Your task to perform on an android device: turn off location history Image 0: 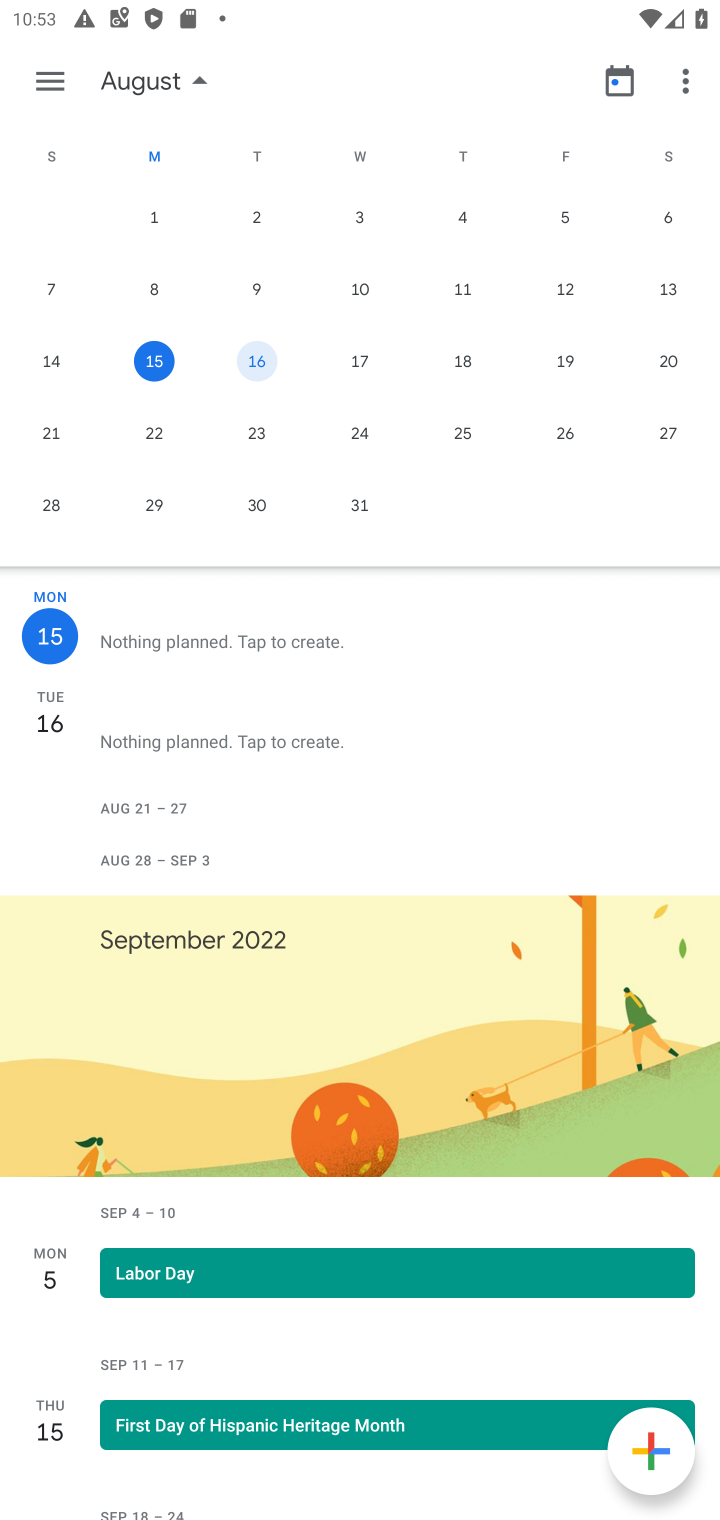
Step 0: press home button
Your task to perform on an android device: turn off location history Image 1: 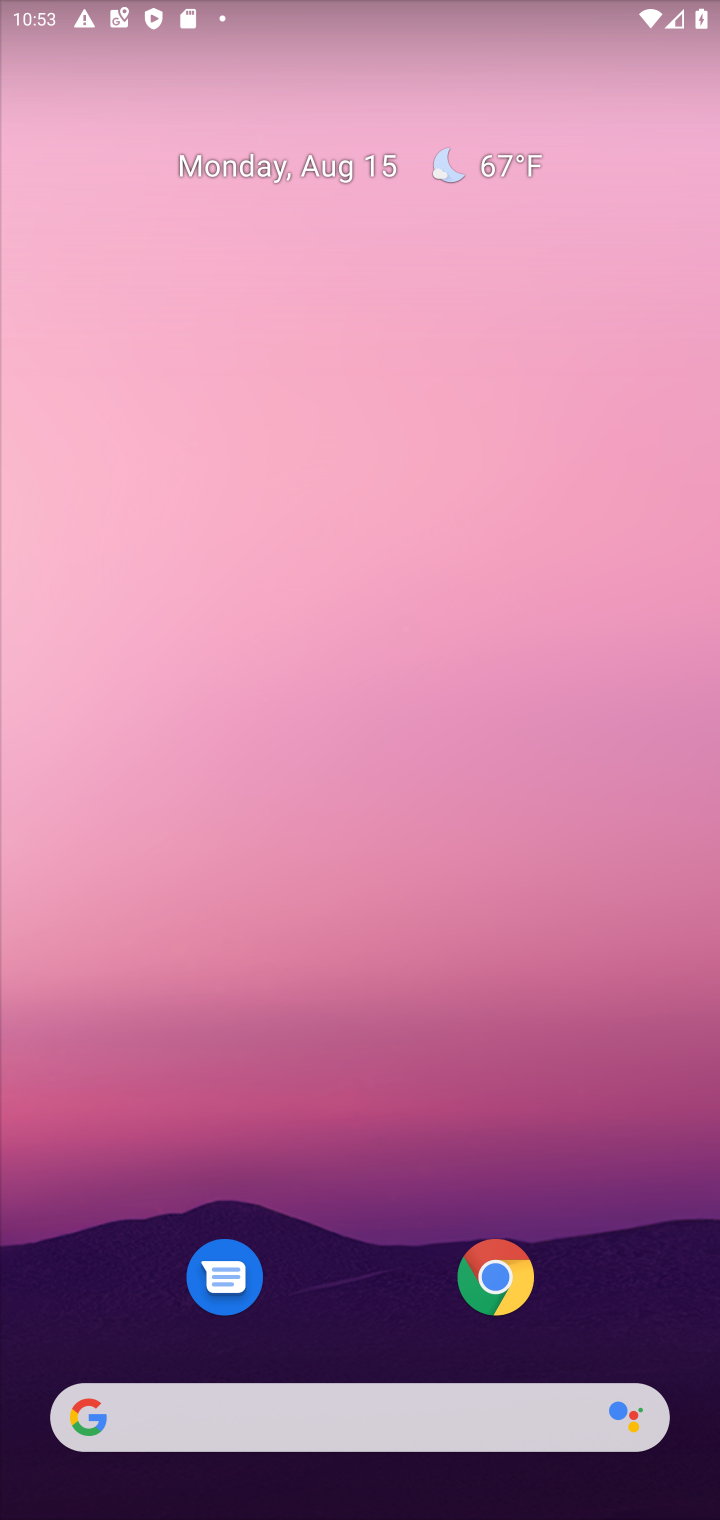
Step 1: drag from (279, 1398) to (272, 151)
Your task to perform on an android device: turn off location history Image 2: 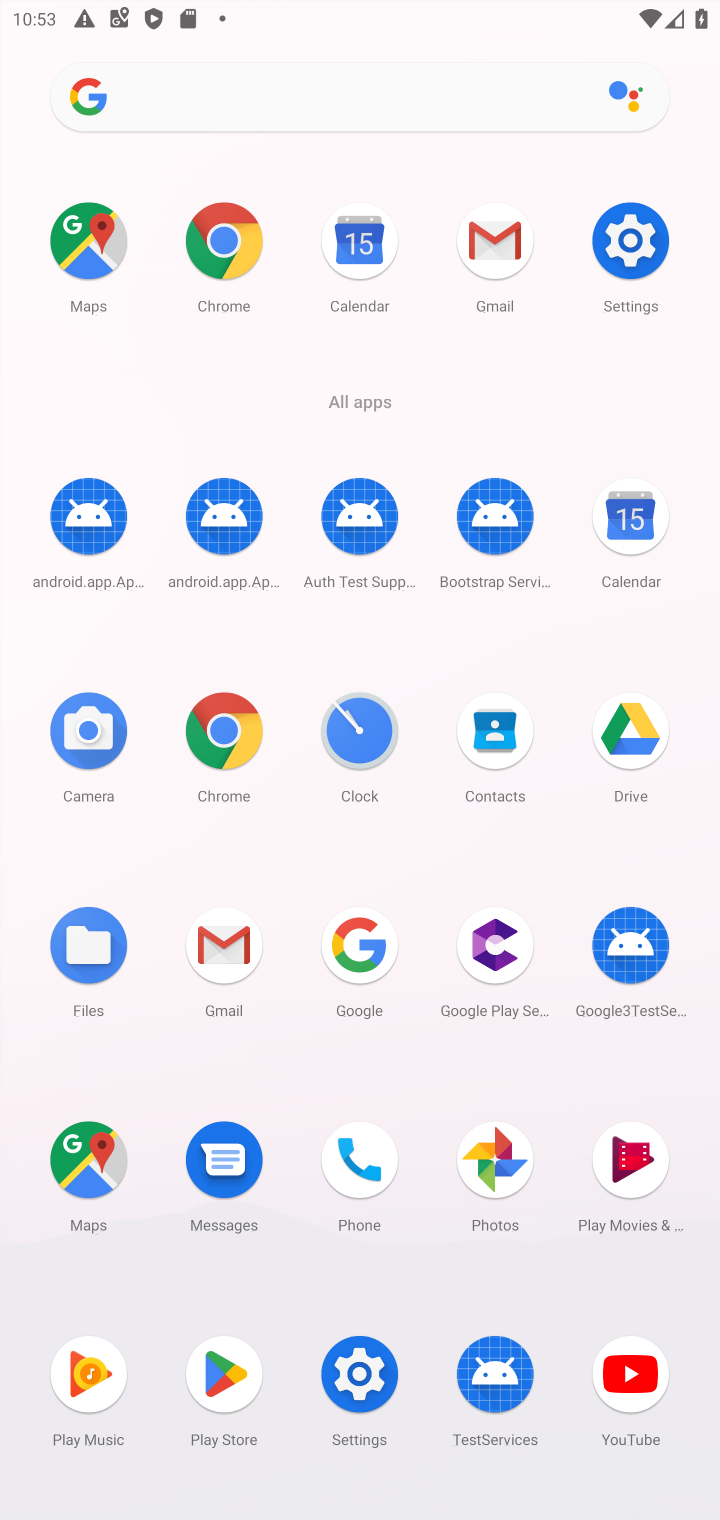
Step 2: click (632, 238)
Your task to perform on an android device: turn off location history Image 3: 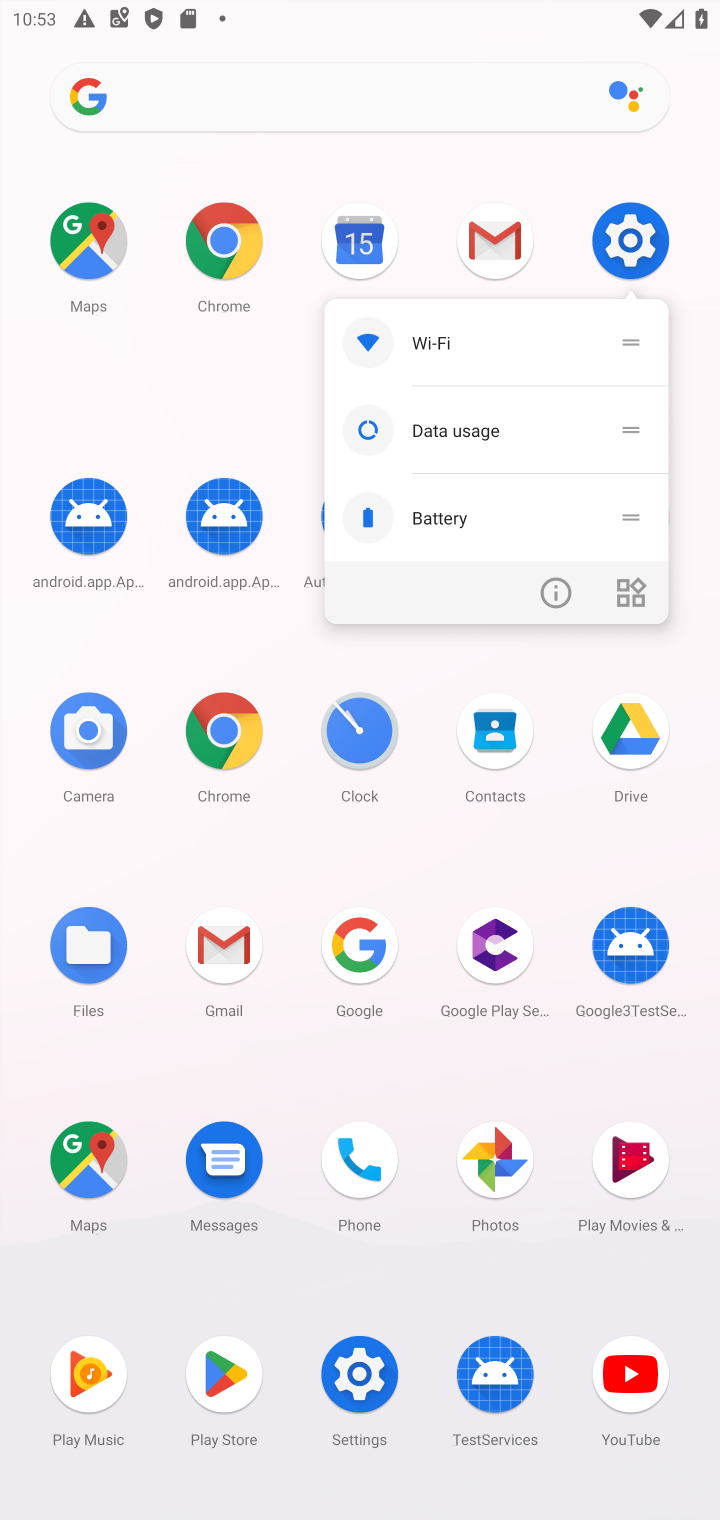
Step 3: click (625, 214)
Your task to perform on an android device: turn off location history Image 4: 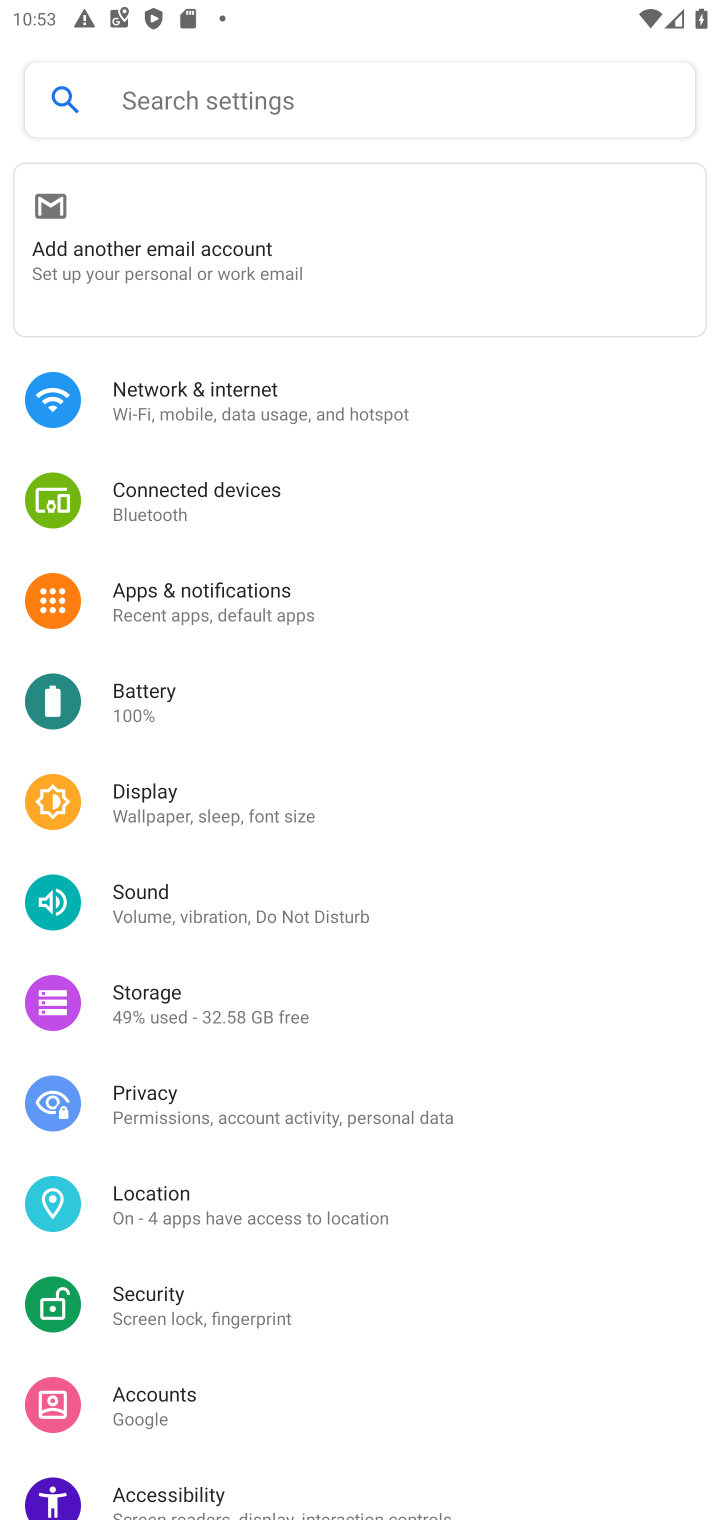
Step 4: drag from (192, 1391) to (270, 289)
Your task to perform on an android device: turn off location history Image 5: 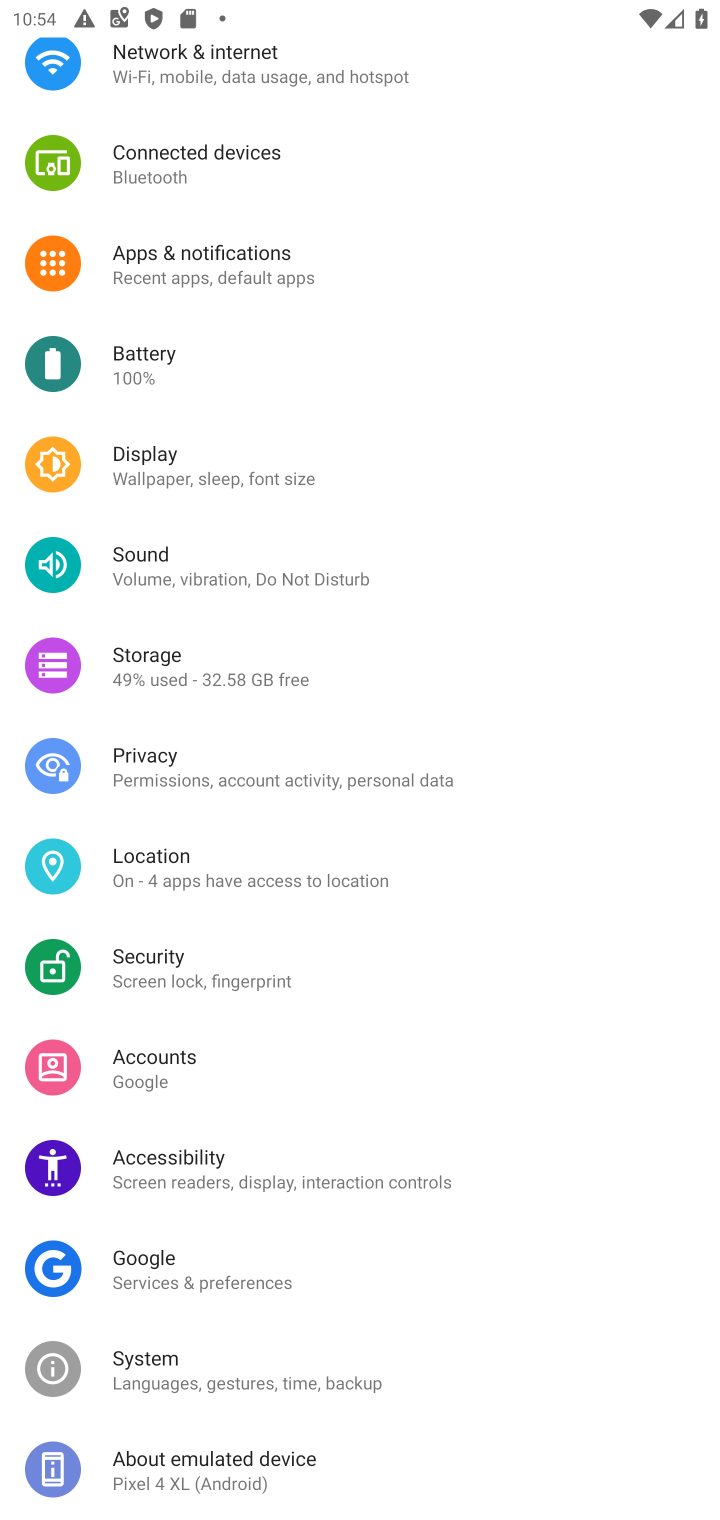
Step 5: click (193, 882)
Your task to perform on an android device: turn off location history Image 6: 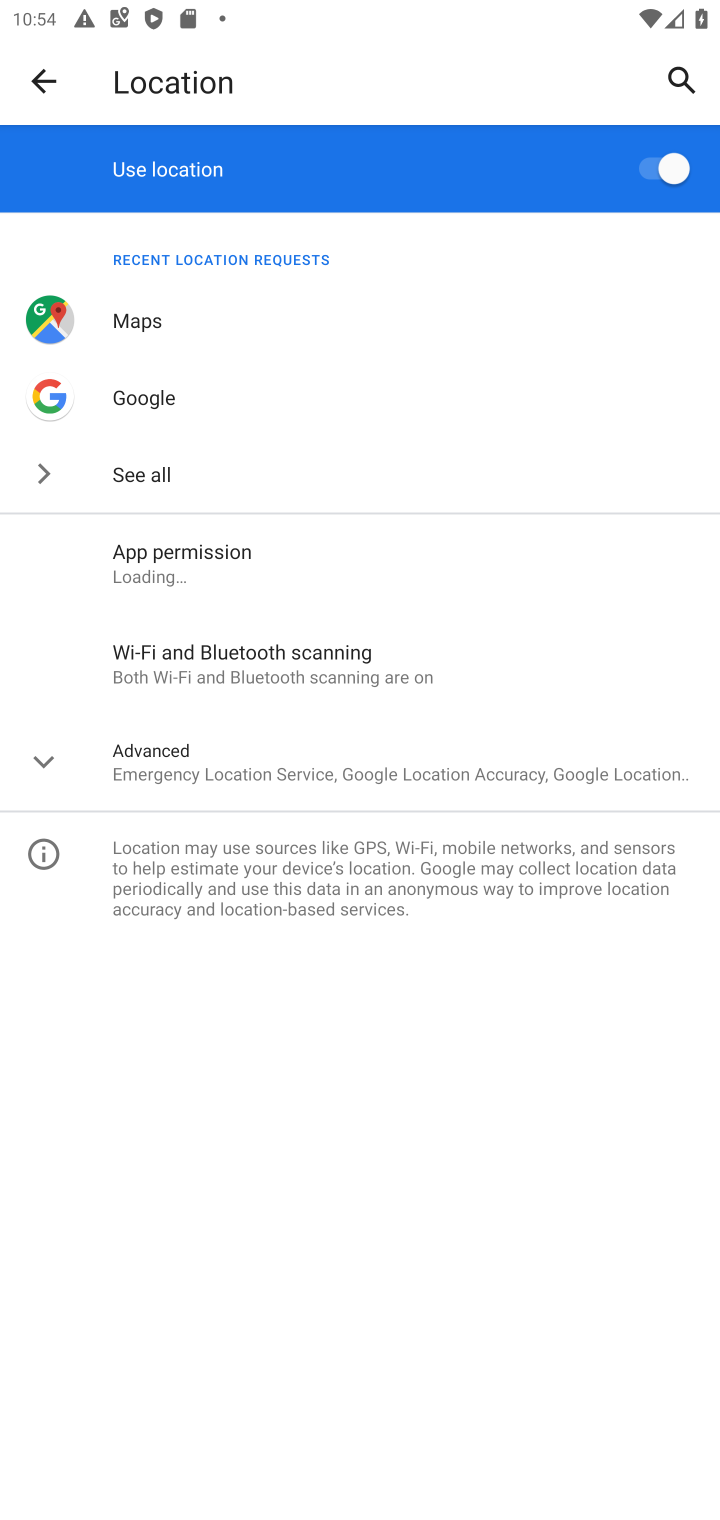
Step 6: click (260, 780)
Your task to perform on an android device: turn off location history Image 7: 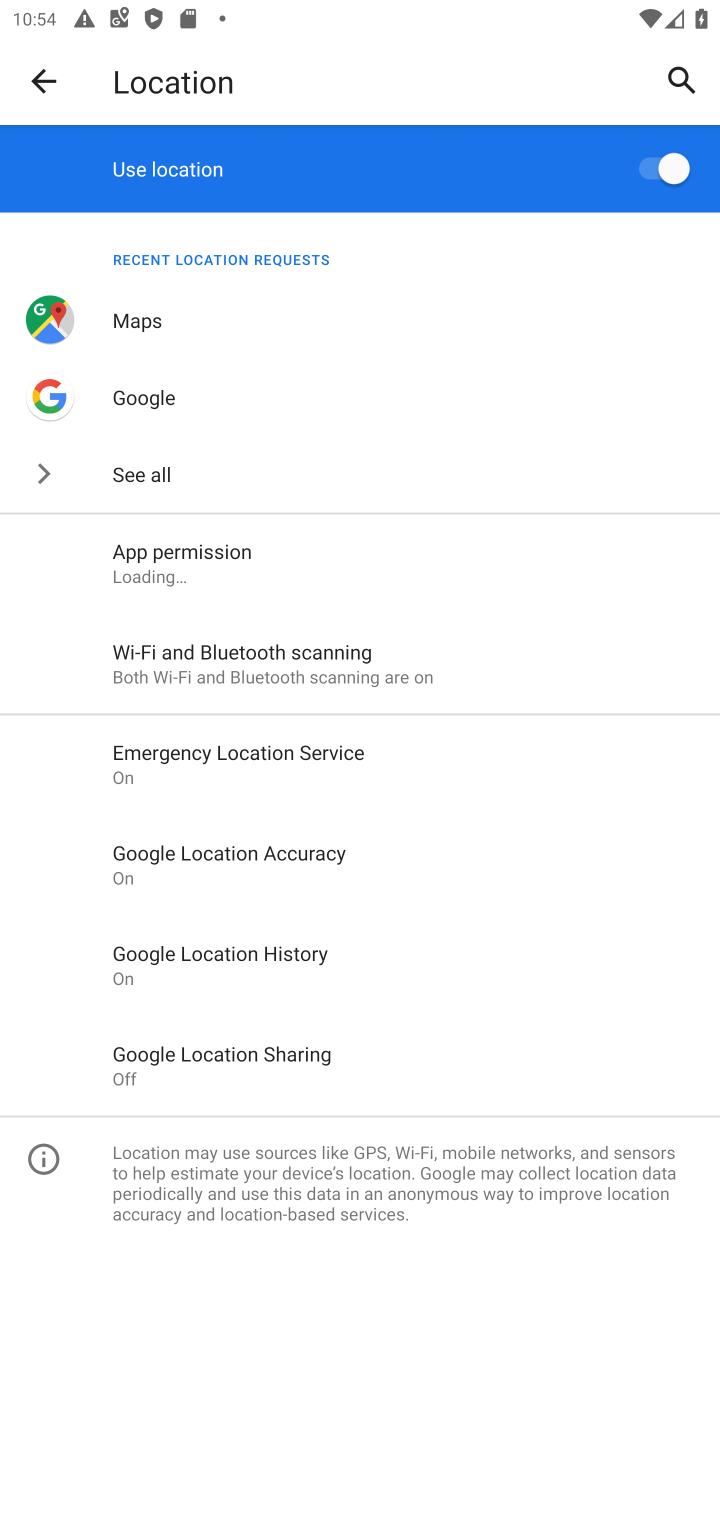
Step 7: click (284, 931)
Your task to perform on an android device: turn off location history Image 8: 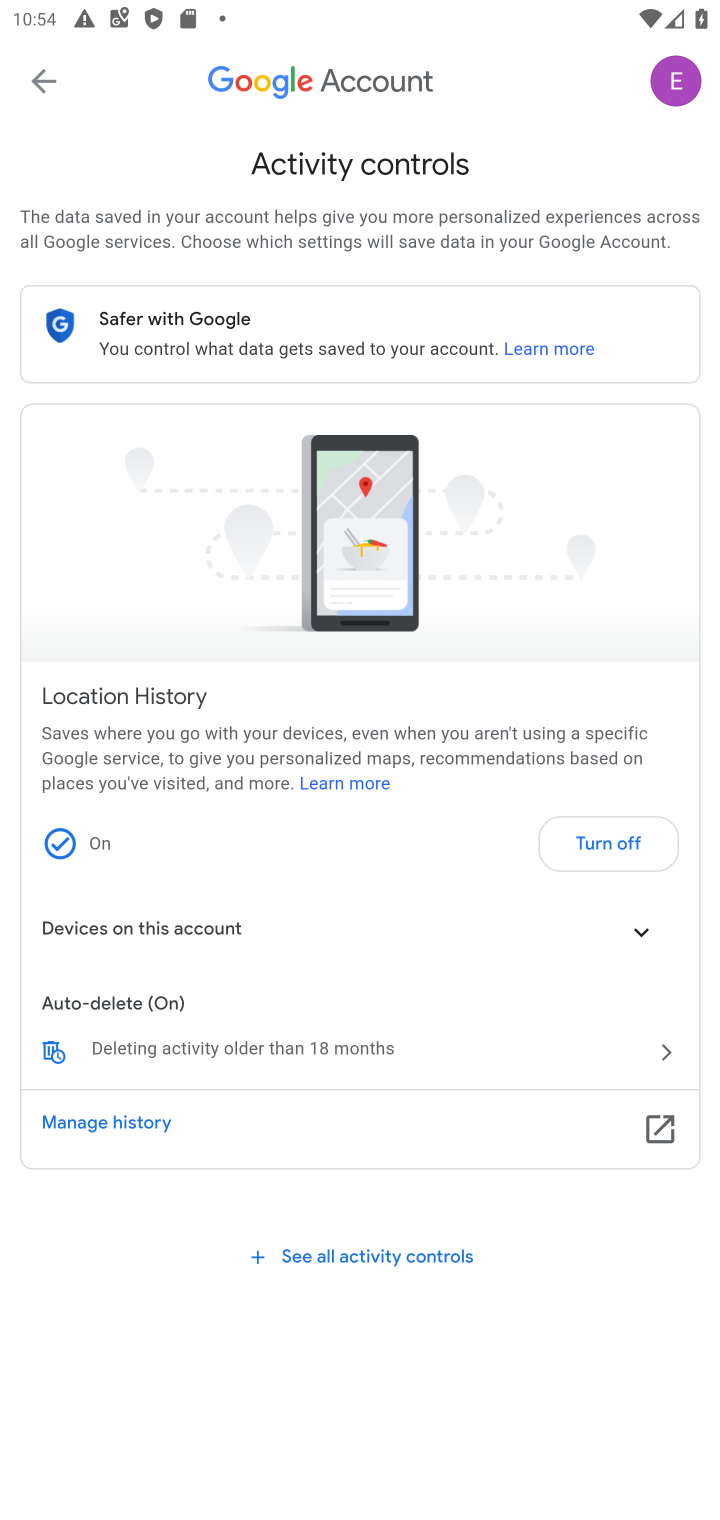
Step 8: click (605, 834)
Your task to perform on an android device: turn off location history Image 9: 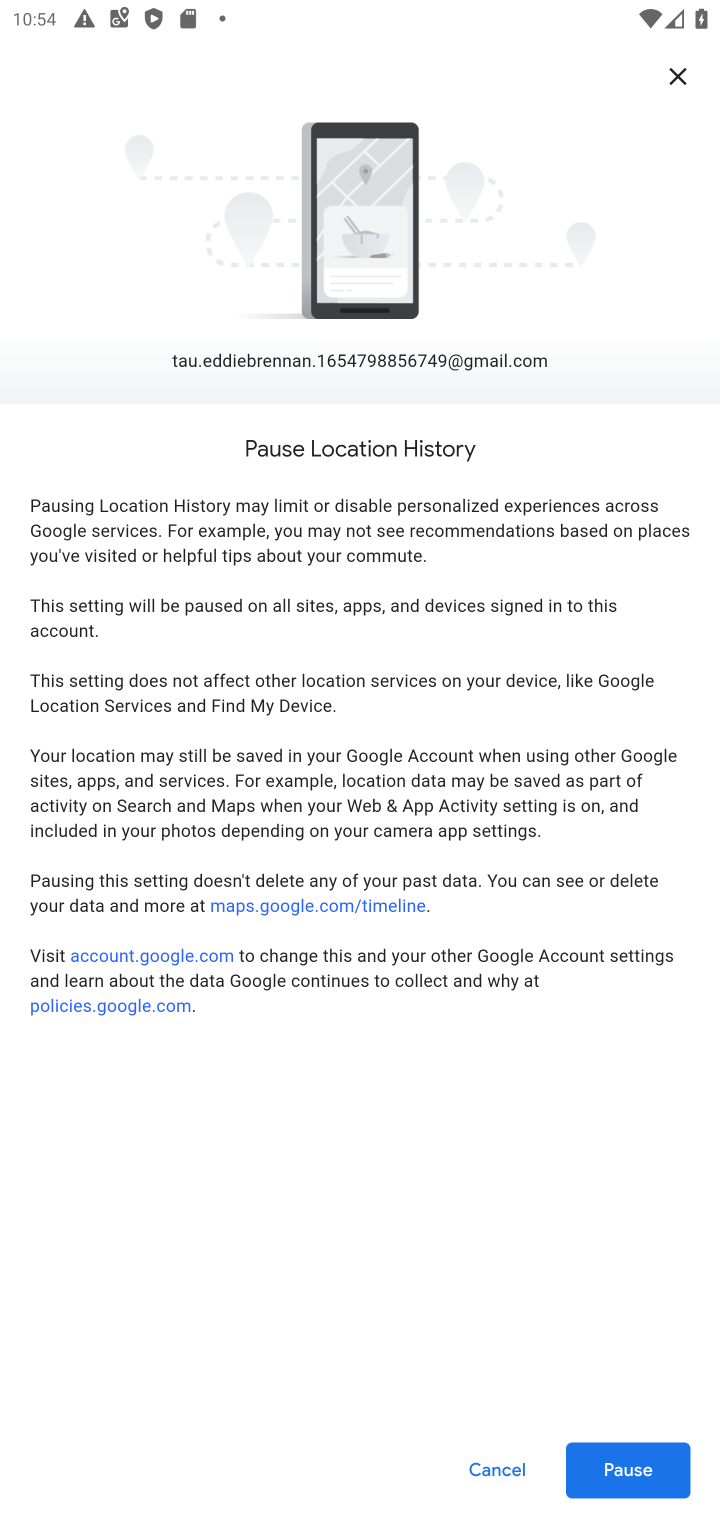
Step 9: click (631, 1490)
Your task to perform on an android device: turn off location history Image 10: 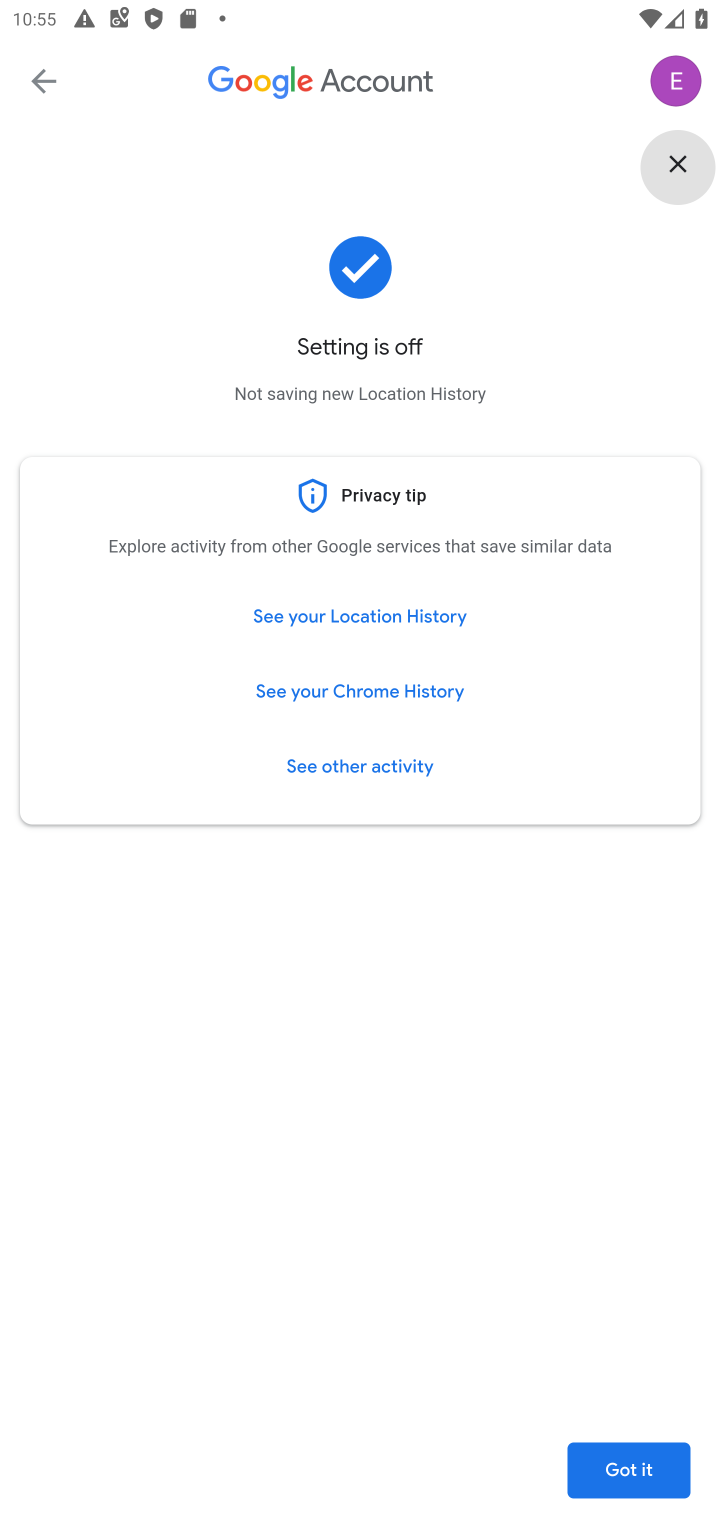
Step 10: click (631, 1490)
Your task to perform on an android device: turn off location history Image 11: 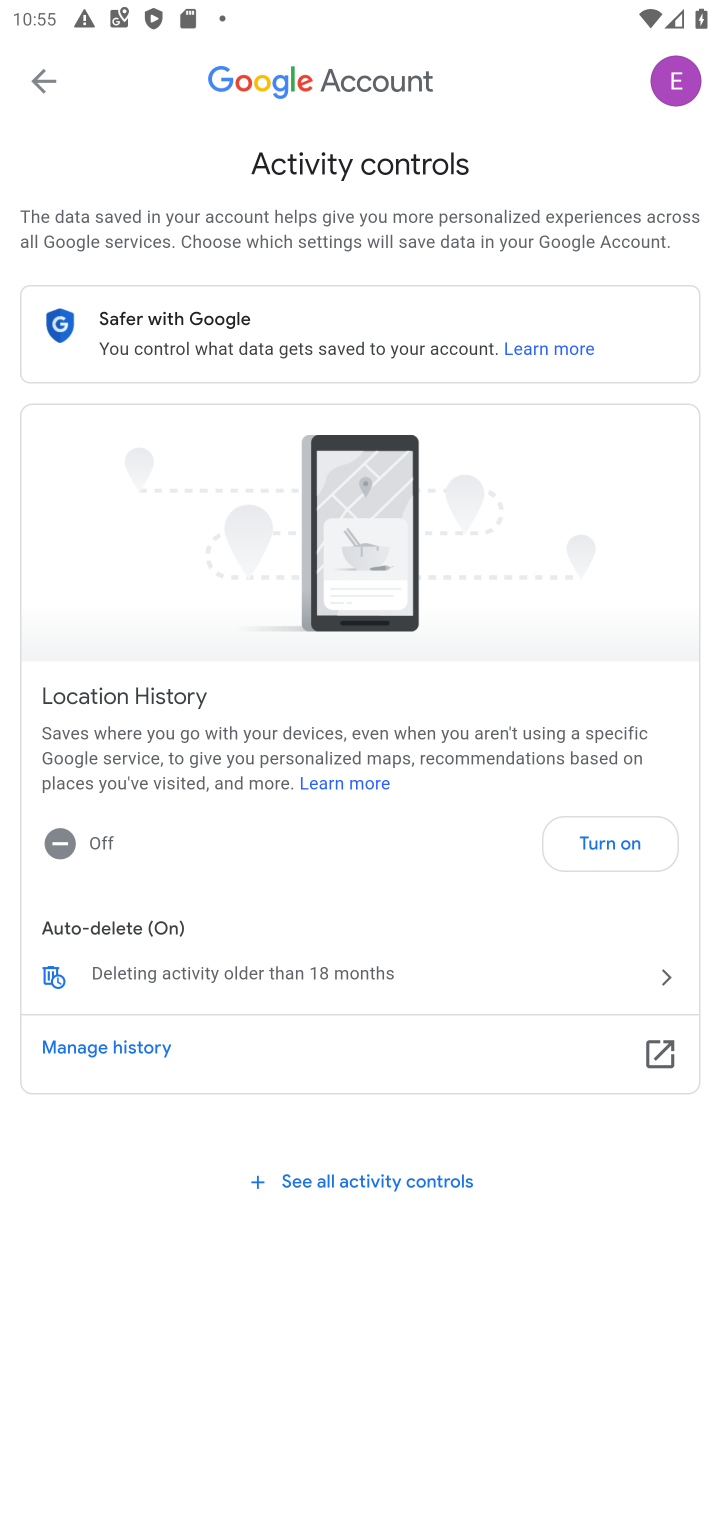
Step 11: task complete